Your task to perform on an android device: turn off improve location accuracy Image 0: 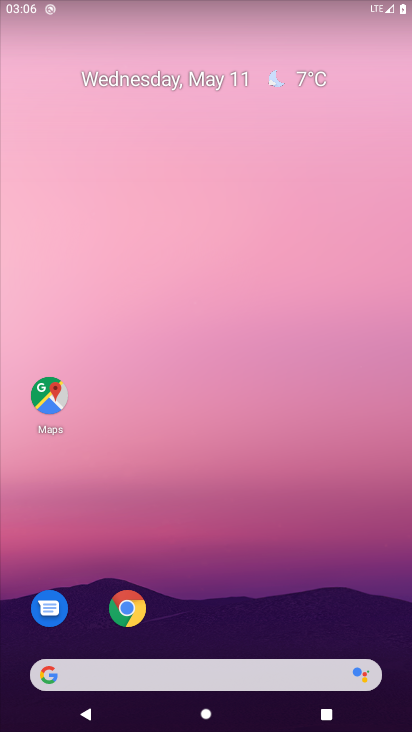
Step 0: drag from (233, 632) to (298, 23)
Your task to perform on an android device: turn off improve location accuracy Image 1: 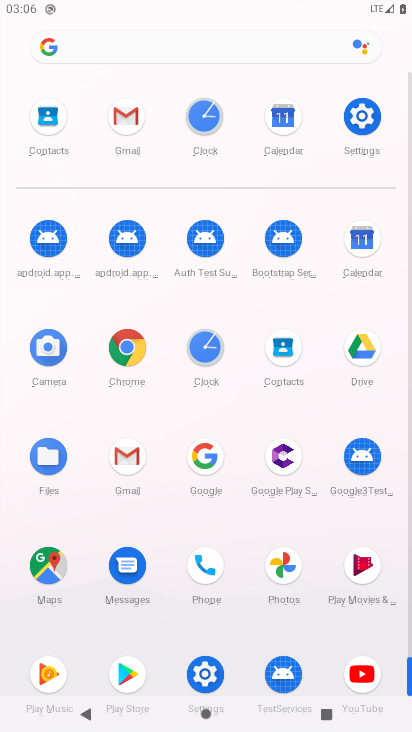
Step 1: click (366, 114)
Your task to perform on an android device: turn off improve location accuracy Image 2: 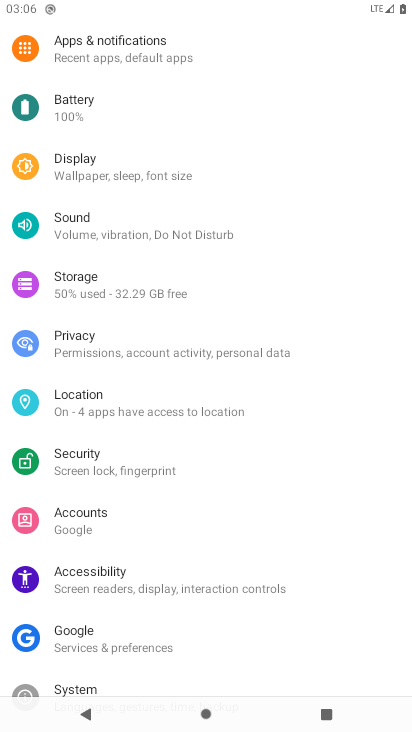
Step 2: click (114, 395)
Your task to perform on an android device: turn off improve location accuracy Image 3: 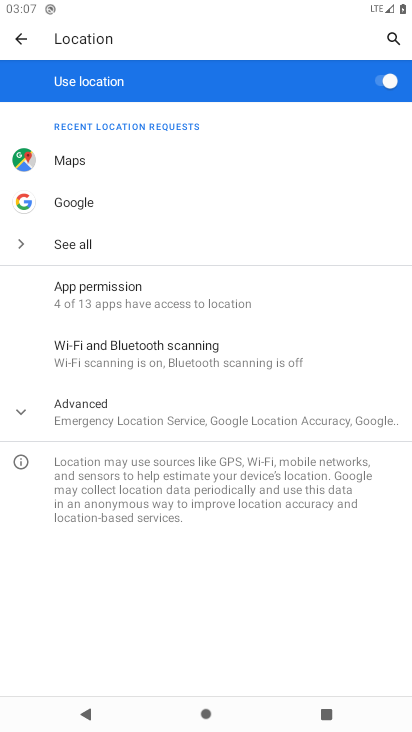
Step 3: click (23, 409)
Your task to perform on an android device: turn off improve location accuracy Image 4: 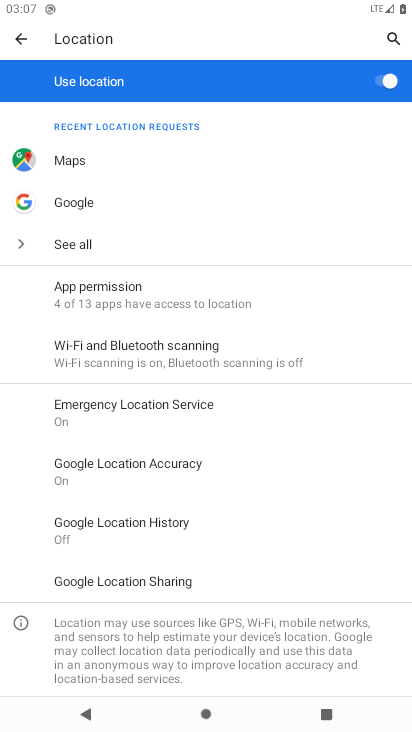
Step 4: click (193, 465)
Your task to perform on an android device: turn off improve location accuracy Image 5: 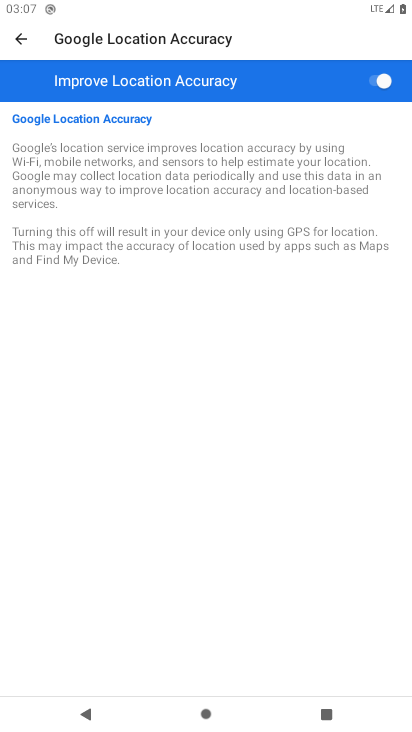
Step 5: click (377, 74)
Your task to perform on an android device: turn off improve location accuracy Image 6: 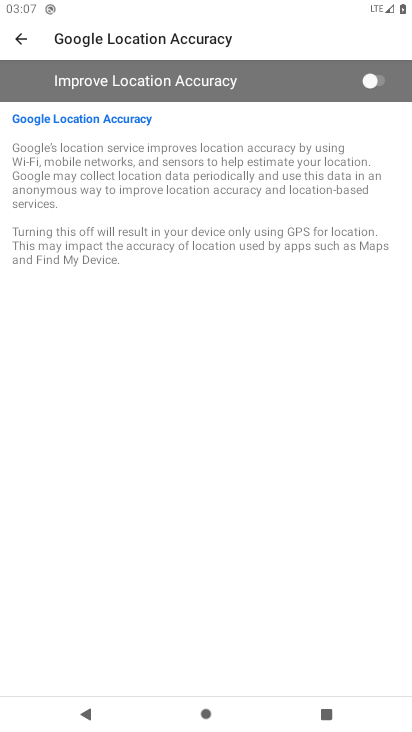
Step 6: task complete